Your task to perform on an android device: set the timer Image 0: 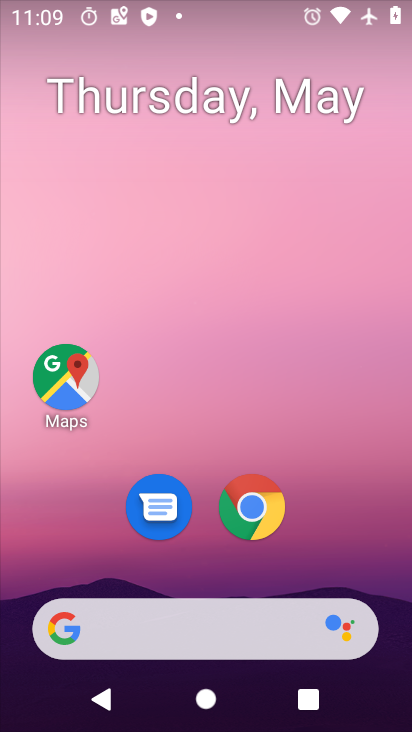
Step 0: drag from (327, 529) to (190, 23)
Your task to perform on an android device: set the timer Image 1: 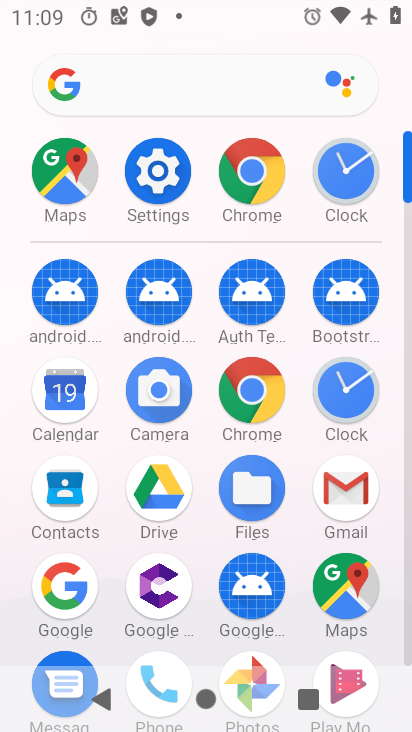
Step 1: drag from (6, 498) to (12, 155)
Your task to perform on an android device: set the timer Image 2: 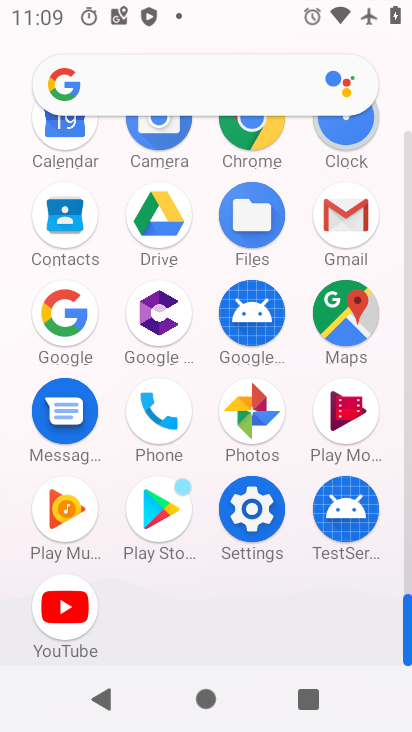
Step 2: click (342, 123)
Your task to perform on an android device: set the timer Image 3: 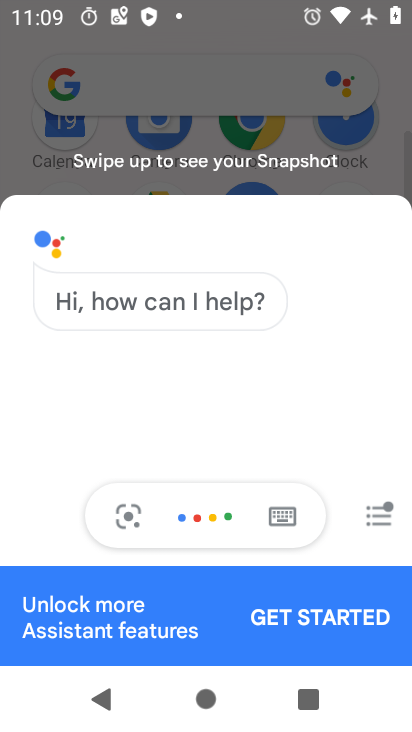
Step 3: press back button
Your task to perform on an android device: set the timer Image 4: 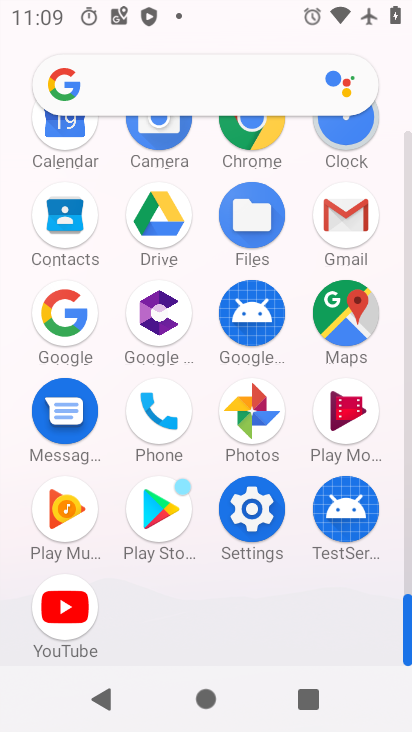
Step 4: press back button
Your task to perform on an android device: set the timer Image 5: 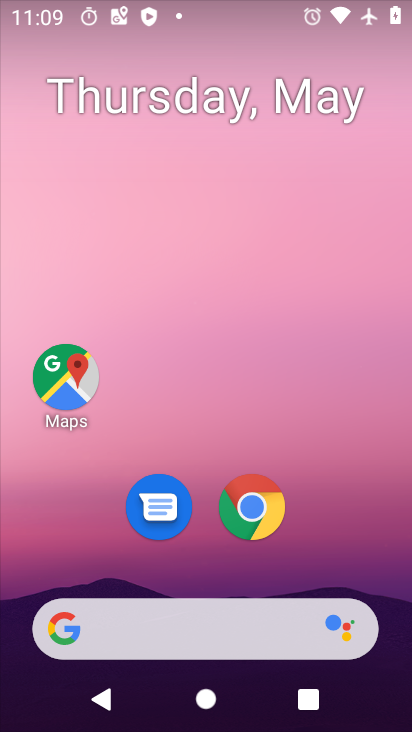
Step 5: drag from (365, 548) to (272, 36)
Your task to perform on an android device: set the timer Image 6: 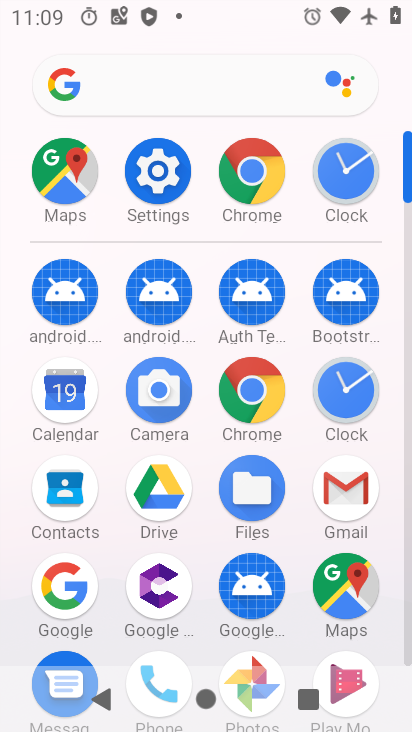
Step 6: click (343, 380)
Your task to perform on an android device: set the timer Image 7: 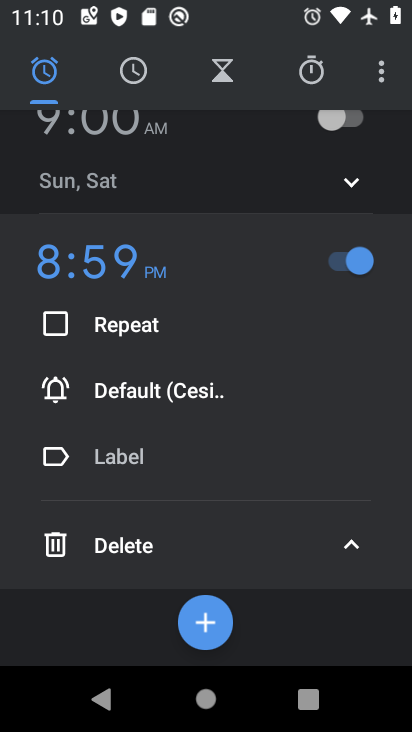
Step 7: click (236, 68)
Your task to perform on an android device: set the timer Image 8: 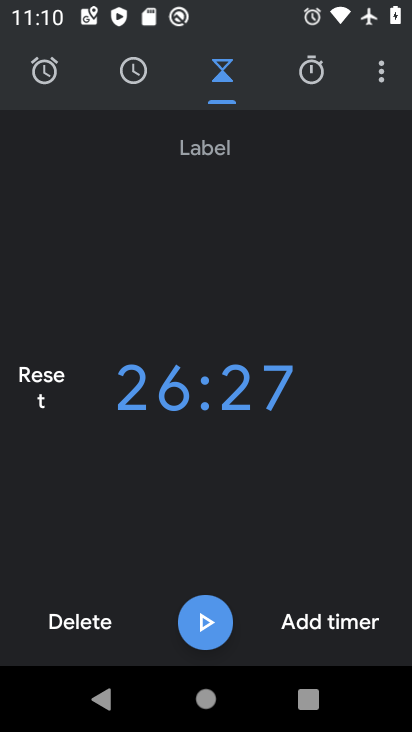
Step 8: click (311, 621)
Your task to perform on an android device: set the timer Image 9: 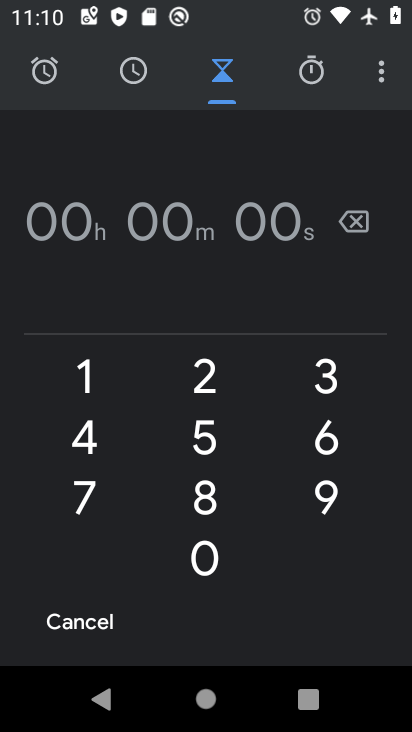
Step 9: click (207, 358)
Your task to perform on an android device: set the timer Image 10: 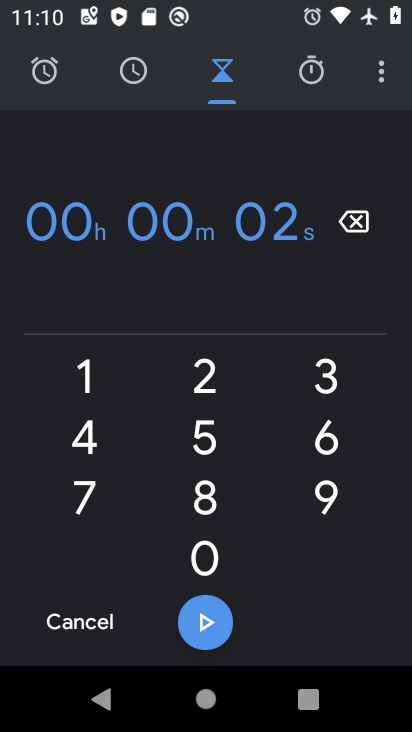
Step 10: click (73, 437)
Your task to perform on an android device: set the timer Image 11: 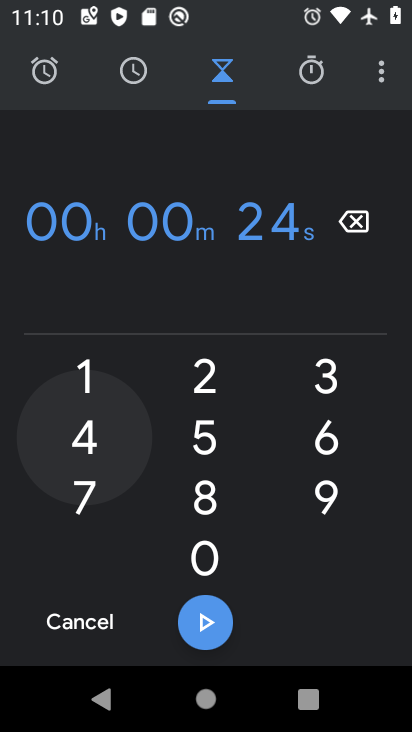
Step 11: click (212, 443)
Your task to perform on an android device: set the timer Image 12: 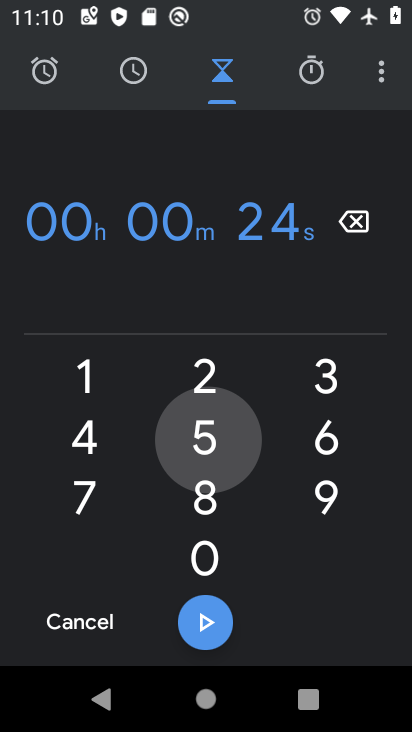
Step 12: click (205, 488)
Your task to perform on an android device: set the timer Image 13: 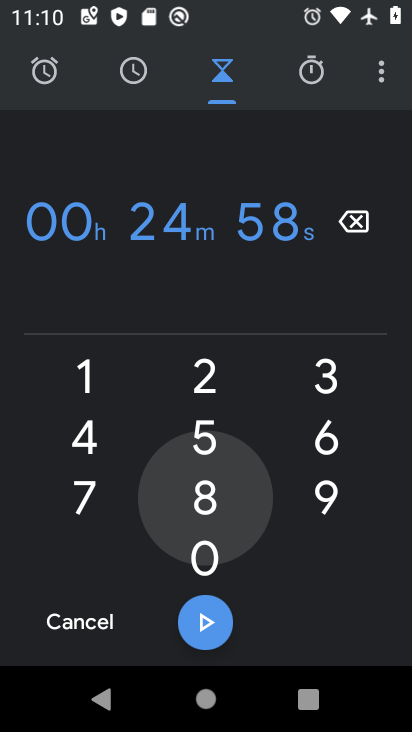
Step 13: click (78, 489)
Your task to perform on an android device: set the timer Image 14: 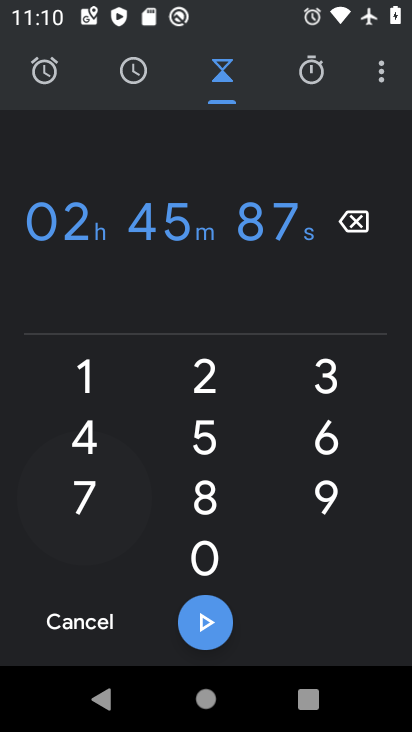
Step 14: click (199, 612)
Your task to perform on an android device: set the timer Image 15: 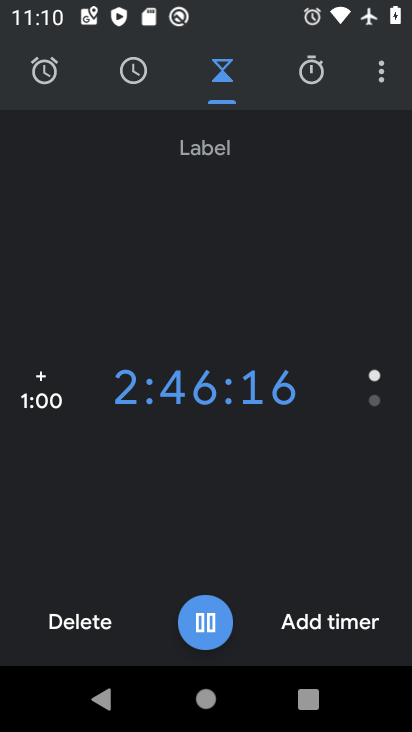
Step 15: task complete